Your task to perform on an android device: Go to Google Image 0: 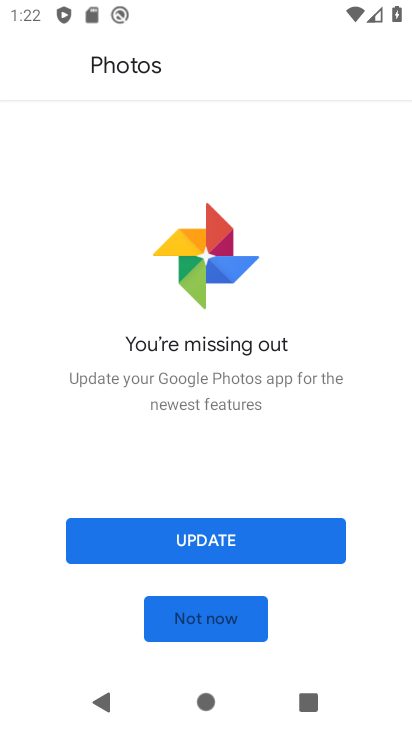
Step 0: press home button
Your task to perform on an android device: Go to Google Image 1: 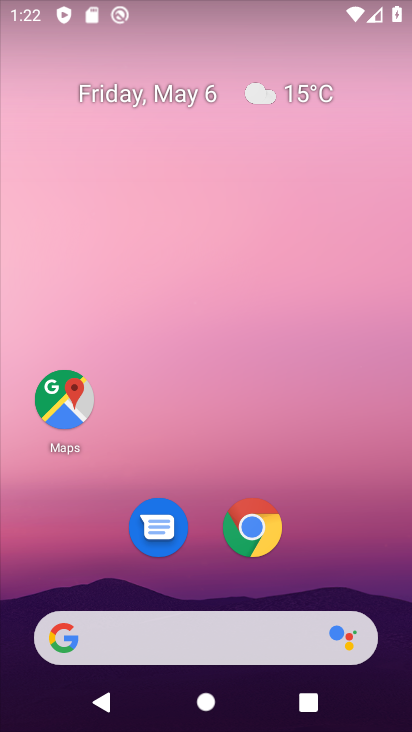
Step 1: click (201, 632)
Your task to perform on an android device: Go to Google Image 2: 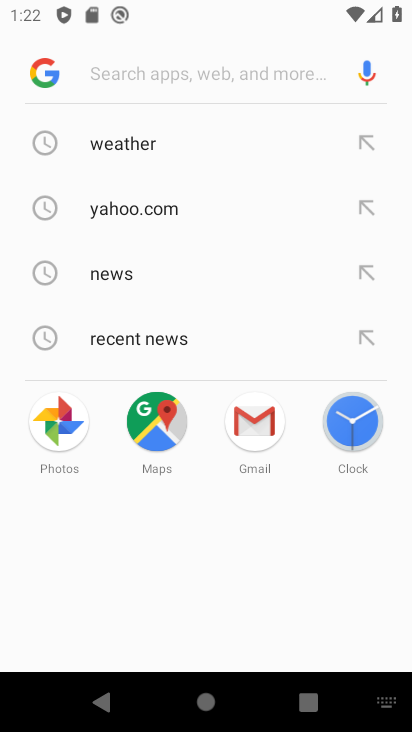
Step 2: task complete